Your task to perform on an android device: allow notifications from all sites in the chrome app Image 0: 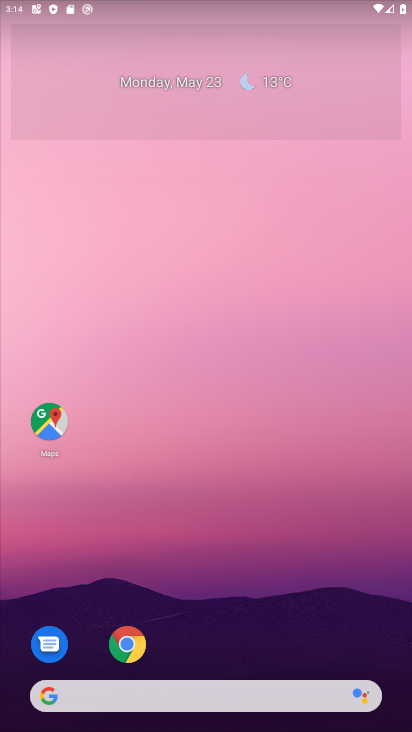
Step 0: click (120, 638)
Your task to perform on an android device: allow notifications from all sites in the chrome app Image 1: 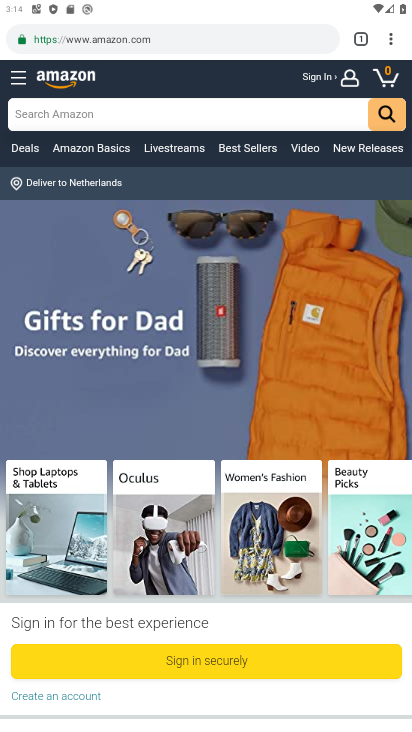
Step 1: drag from (392, 38) to (270, 476)
Your task to perform on an android device: allow notifications from all sites in the chrome app Image 2: 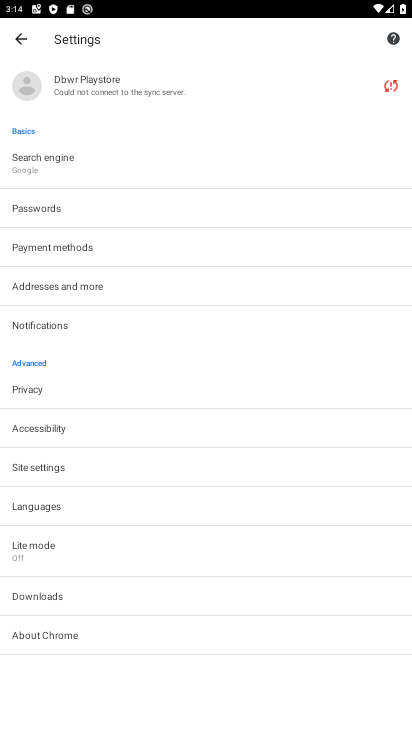
Step 2: click (74, 461)
Your task to perform on an android device: allow notifications from all sites in the chrome app Image 3: 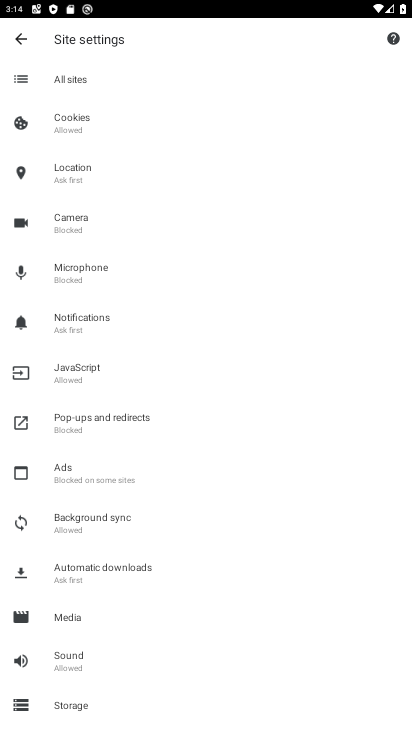
Step 3: click (60, 75)
Your task to perform on an android device: allow notifications from all sites in the chrome app Image 4: 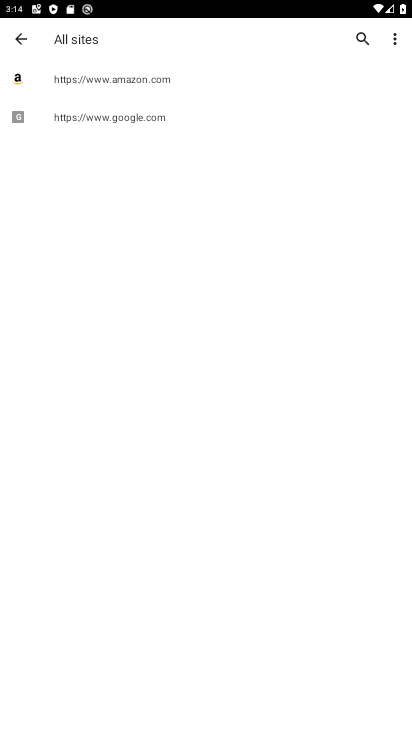
Step 4: click (19, 29)
Your task to perform on an android device: allow notifications from all sites in the chrome app Image 5: 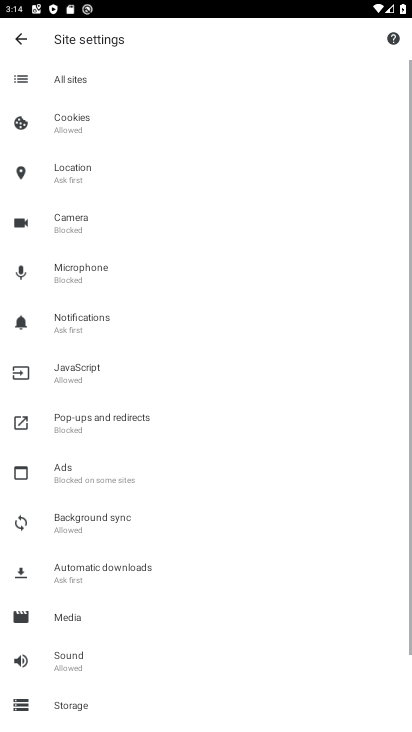
Step 5: click (14, 42)
Your task to perform on an android device: allow notifications from all sites in the chrome app Image 6: 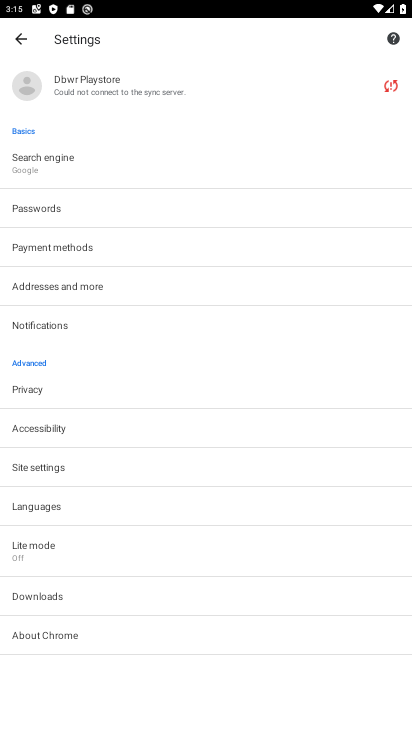
Step 6: click (73, 328)
Your task to perform on an android device: allow notifications from all sites in the chrome app Image 7: 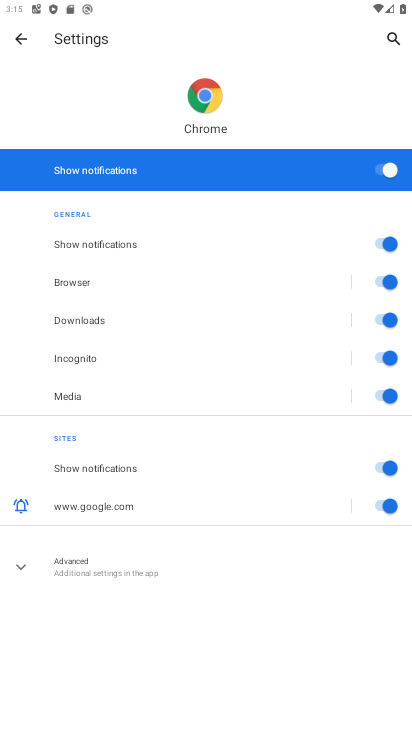
Step 7: task complete